Your task to perform on an android device: Open the calendar app, open the side menu, and click the "Day" option Image 0: 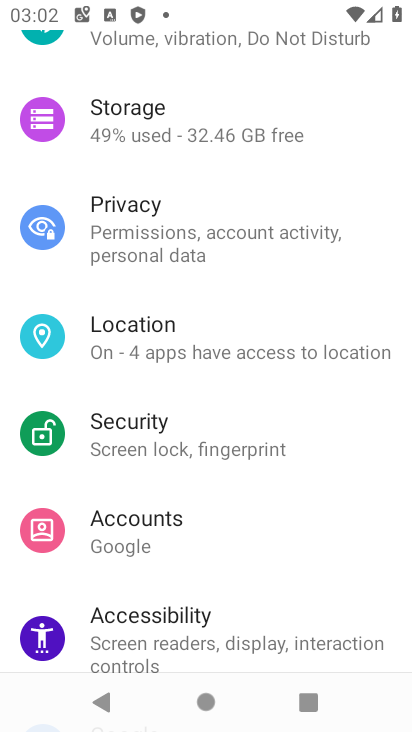
Step 0: press home button
Your task to perform on an android device: Open the calendar app, open the side menu, and click the "Day" option Image 1: 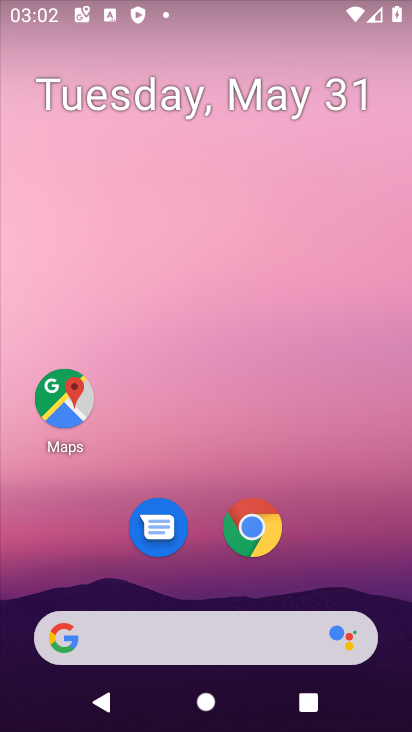
Step 1: drag from (395, 600) to (289, 28)
Your task to perform on an android device: Open the calendar app, open the side menu, and click the "Day" option Image 2: 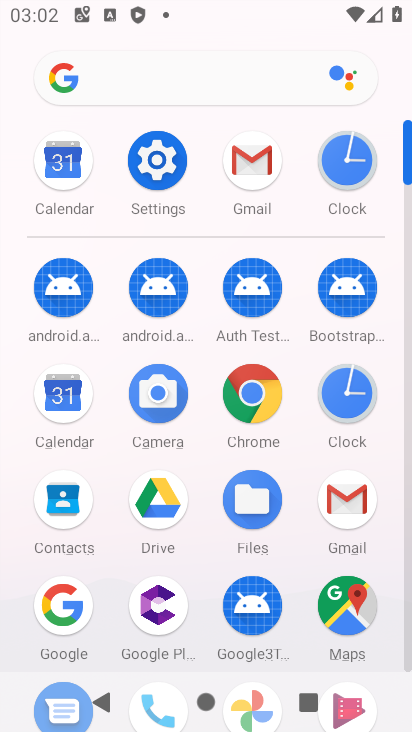
Step 2: click (409, 641)
Your task to perform on an android device: Open the calendar app, open the side menu, and click the "Day" option Image 3: 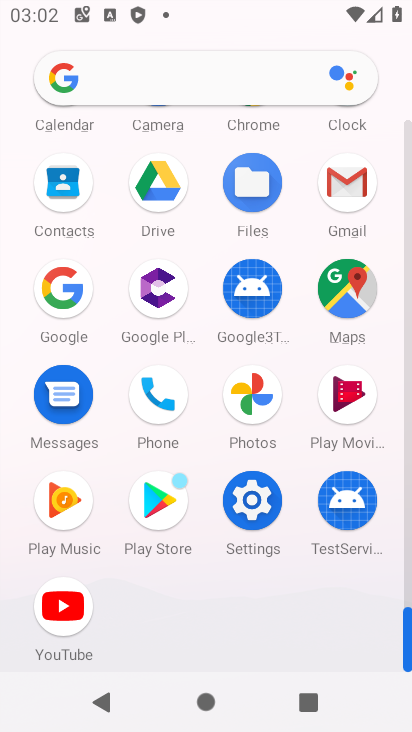
Step 3: click (66, 116)
Your task to perform on an android device: Open the calendar app, open the side menu, and click the "Day" option Image 4: 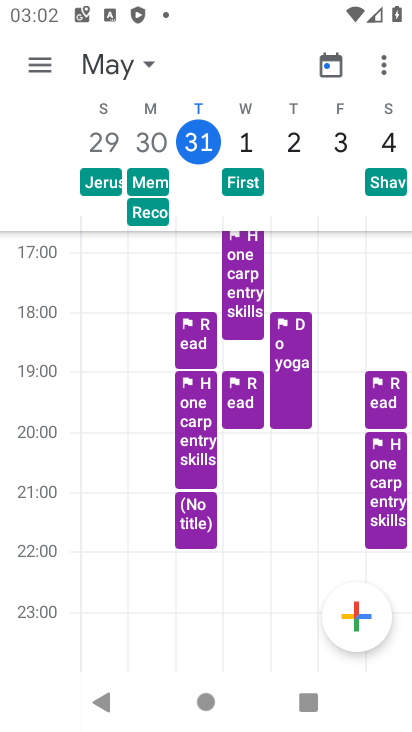
Step 4: click (37, 65)
Your task to perform on an android device: Open the calendar app, open the side menu, and click the "Day" option Image 5: 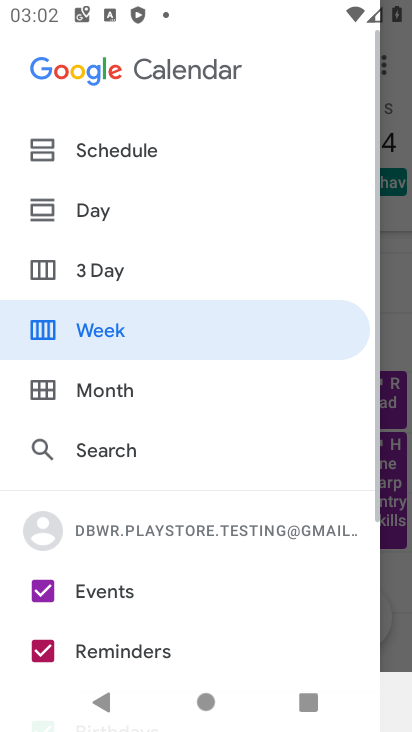
Step 5: click (99, 215)
Your task to perform on an android device: Open the calendar app, open the side menu, and click the "Day" option Image 6: 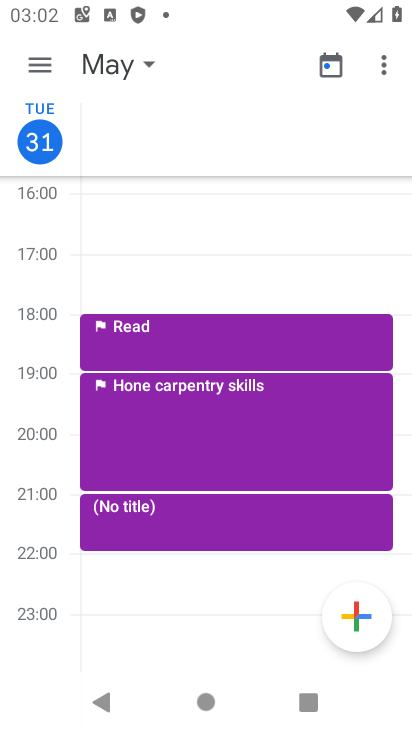
Step 6: task complete